Your task to perform on an android device: Go to eBay Image 0: 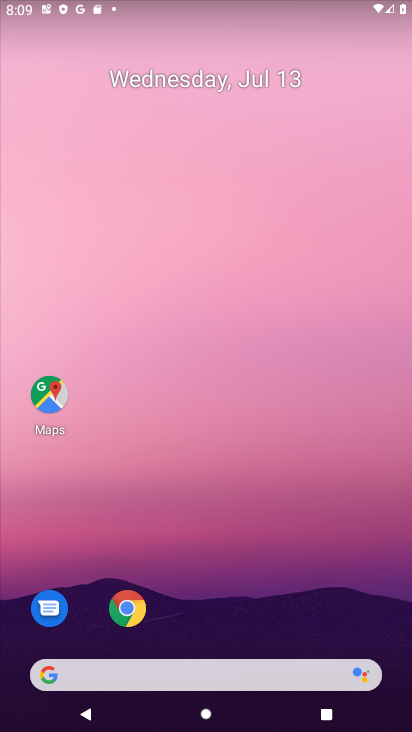
Step 0: drag from (254, 541) to (158, 263)
Your task to perform on an android device: Go to eBay Image 1: 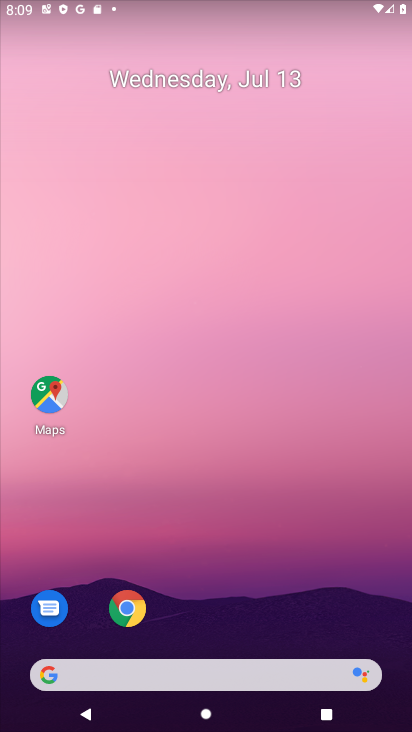
Step 1: drag from (260, 643) to (226, 394)
Your task to perform on an android device: Go to eBay Image 2: 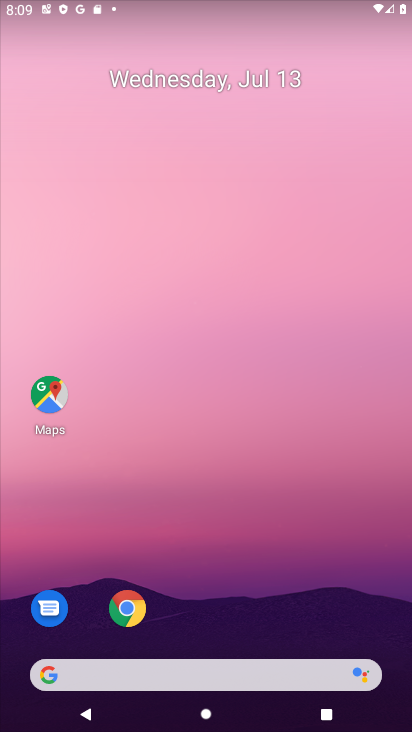
Step 2: drag from (271, 729) to (127, 226)
Your task to perform on an android device: Go to eBay Image 3: 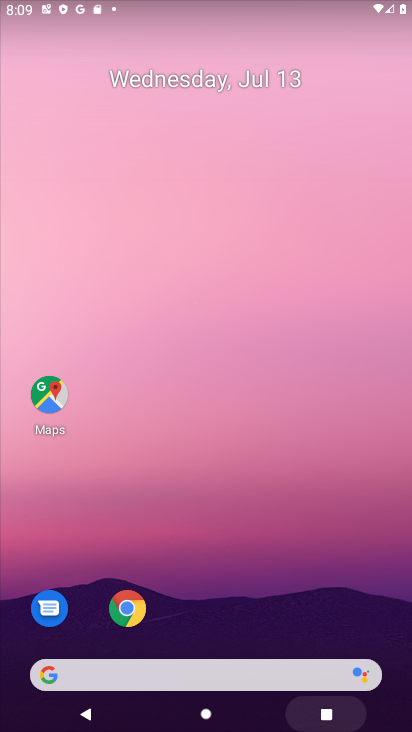
Step 3: drag from (237, 565) to (208, 173)
Your task to perform on an android device: Go to eBay Image 4: 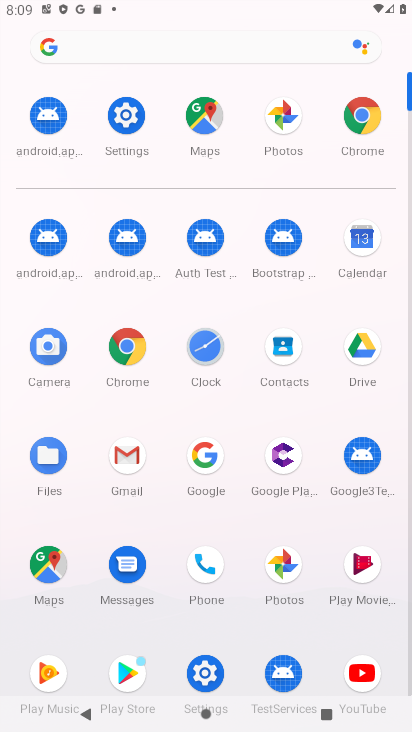
Step 4: click (364, 119)
Your task to perform on an android device: Go to eBay Image 5: 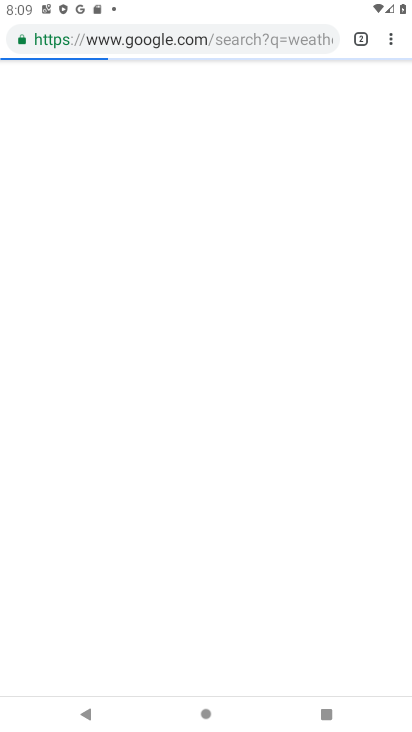
Step 5: drag from (390, 50) to (257, 448)
Your task to perform on an android device: Go to eBay Image 6: 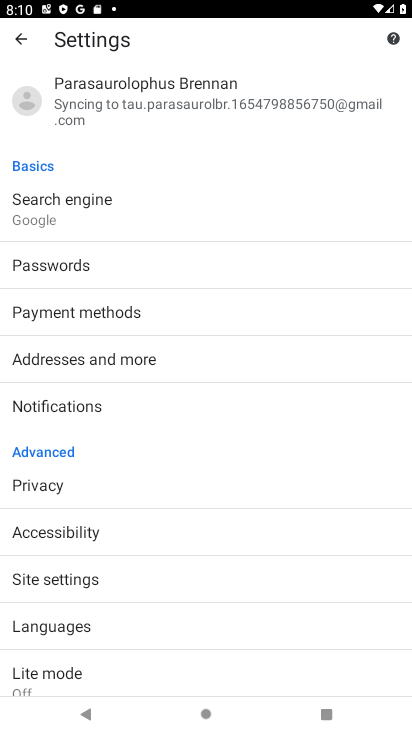
Step 6: click (25, 31)
Your task to perform on an android device: Go to eBay Image 7: 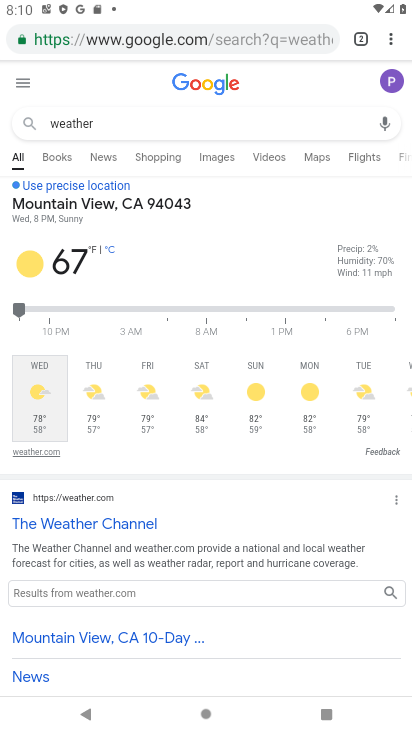
Step 7: drag from (392, 35) to (237, 76)
Your task to perform on an android device: Go to eBay Image 8: 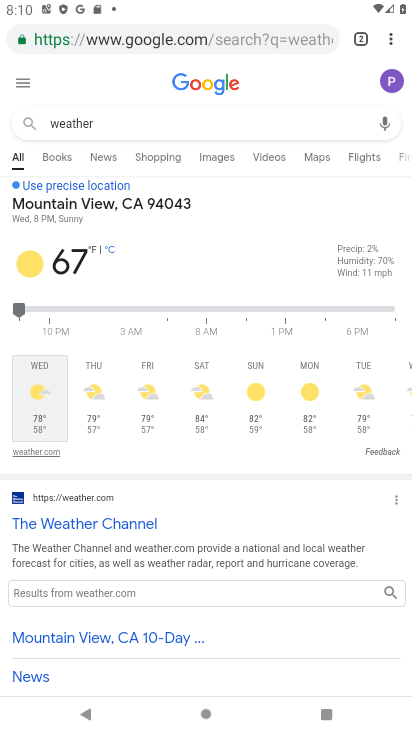
Step 8: click (237, 74)
Your task to perform on an android device: Go to eBay Image 9: 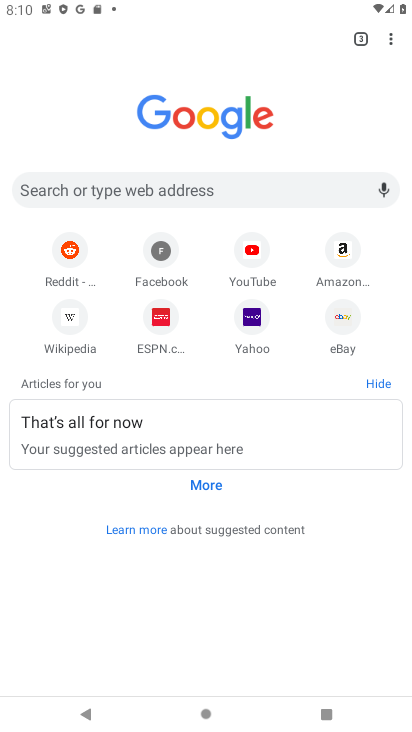
Step 9: click (343, 311)
Your task to perform on an android device: Go to eBay Image 10: 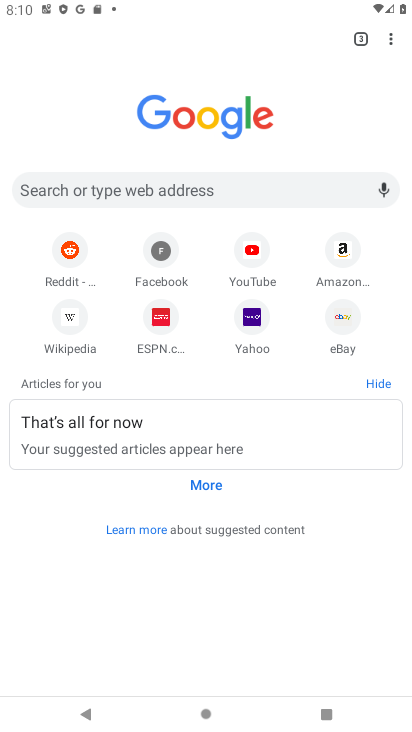
Step 10: click (343, 311)
Your task to perform on an android device: Go to eBay Image 11: 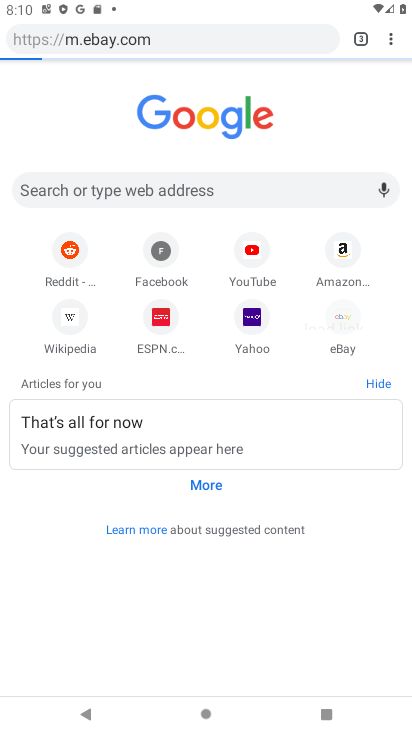
Step 11: click (345, 310)
Your task to perform on an android device: Go to eBay Image 12: 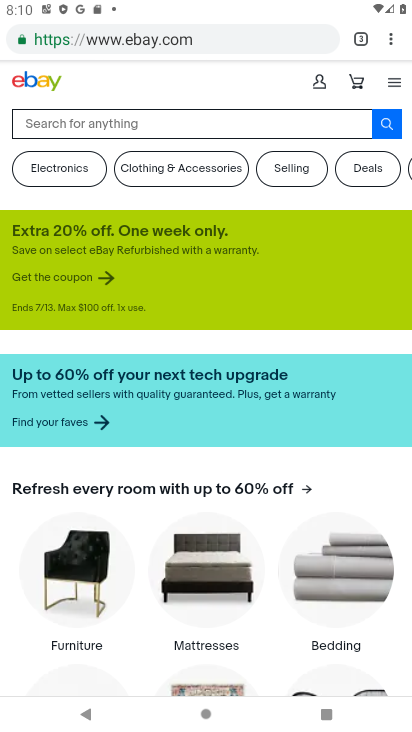
Step 12: task complete